Your task to perform on an android device: What's on my calendar today? Image 0: 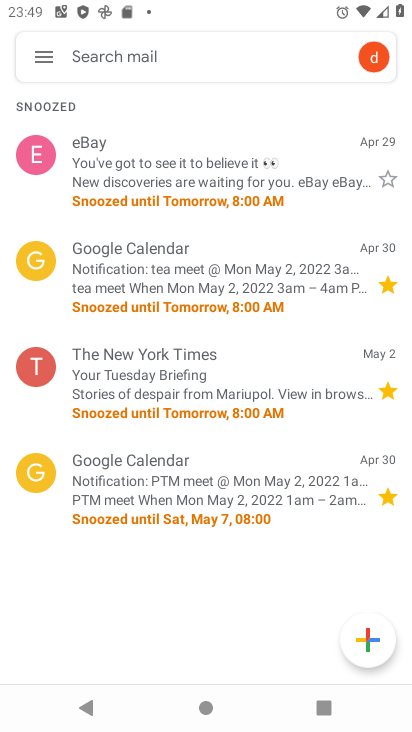
Step 0: press home button
Your task to perform on an android device: What's on my calendar today? Image 1: 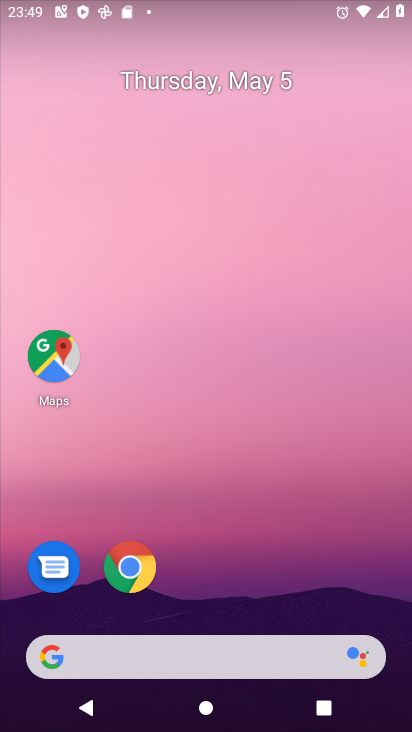
Step 1: drag from (255, 318) to (221, 94)
Your task to perform on an android device: What's on my calendar today? Image 2: 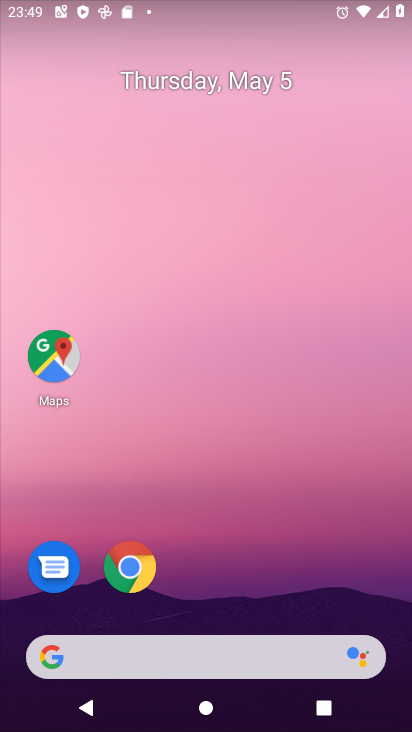
Step 2: drag from (214, 607) to (218, 175)
Your task to perform on an android device: What's on my calendar today? Image 3: 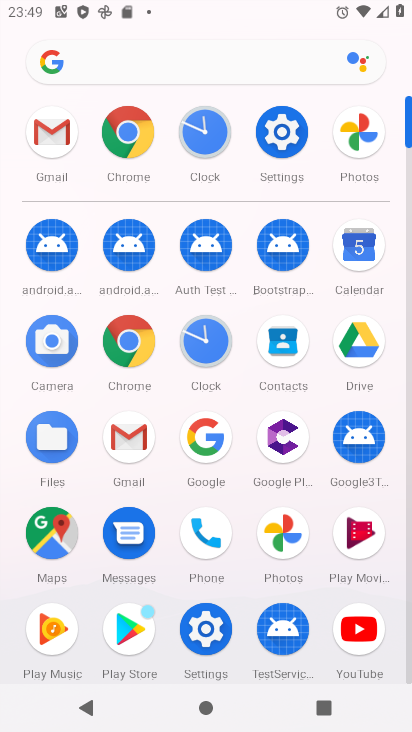
Step 3: click (354, 242)
Your task to perform on an android device: What's on my calendar today? Image 4: 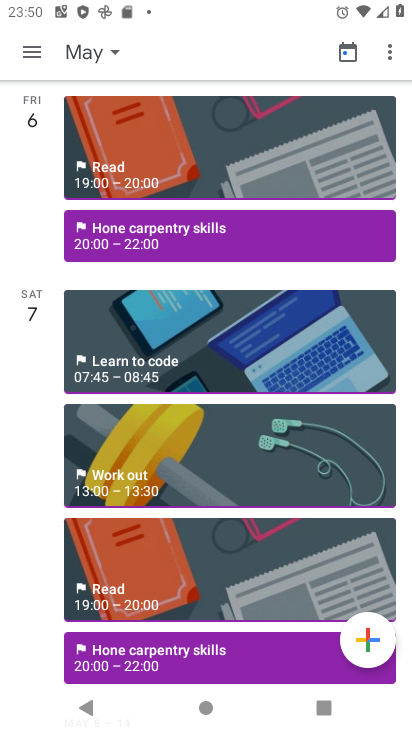
Step 4: click (90, 55)
Your task to perform on an android device: What's on my calendar today? Image 5: 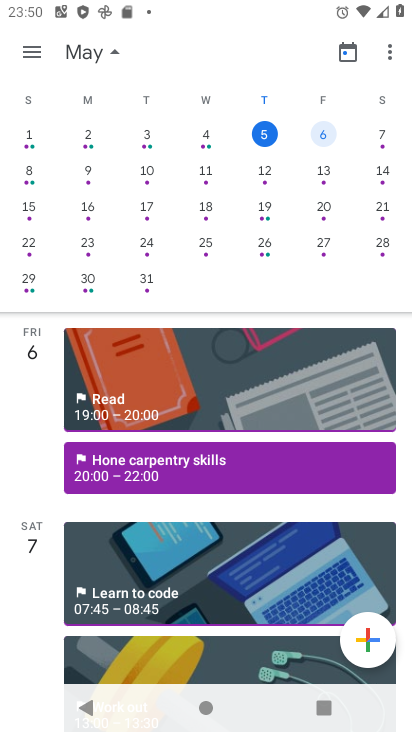
Step 5: click (256, 137)
Your task to perform on an android device: What's on my calendar today? Image 6: 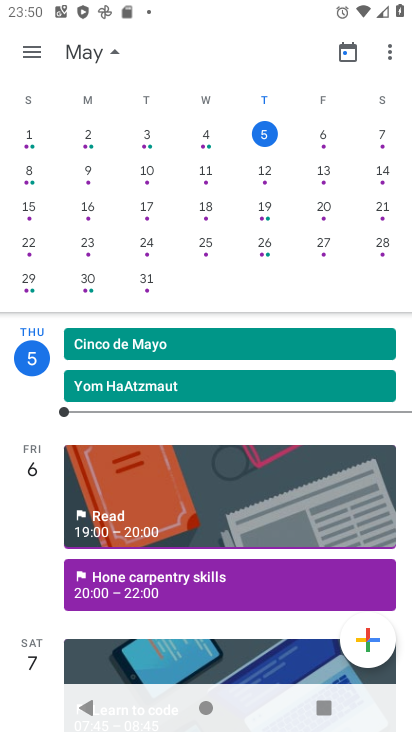
Step 6: click (271, 133)
Your task to perform on an android device: What's on my calendar today? Image 7: 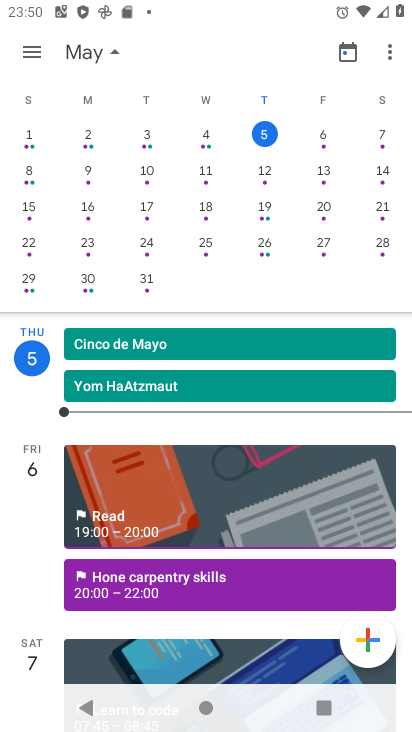
Step 7: click (331, 137)
Your task to perform on an android device: What's on my calendar today? Image 8: 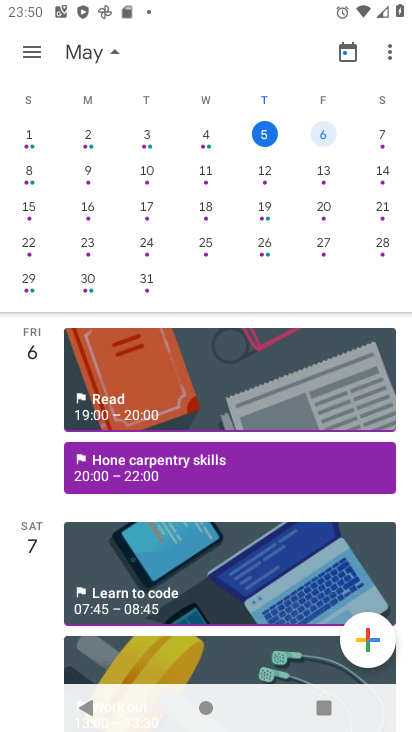
Step 8: click (271, 132)
Your task to perform on an android device: What's on my calendar today? Image 9: 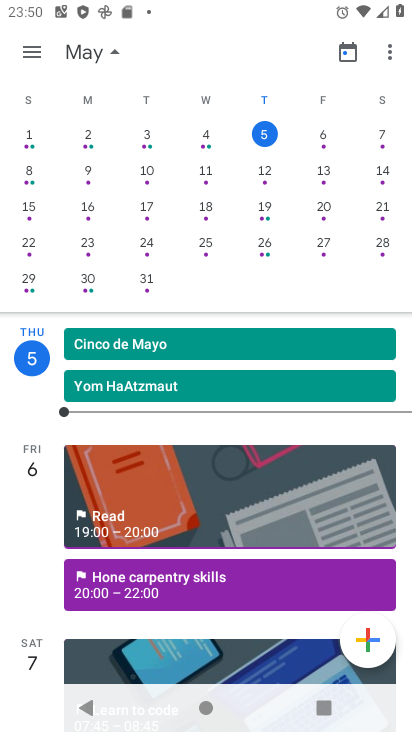
Step 9: task complete